Your task to perform on an android device: all mails in gmail Image 0: 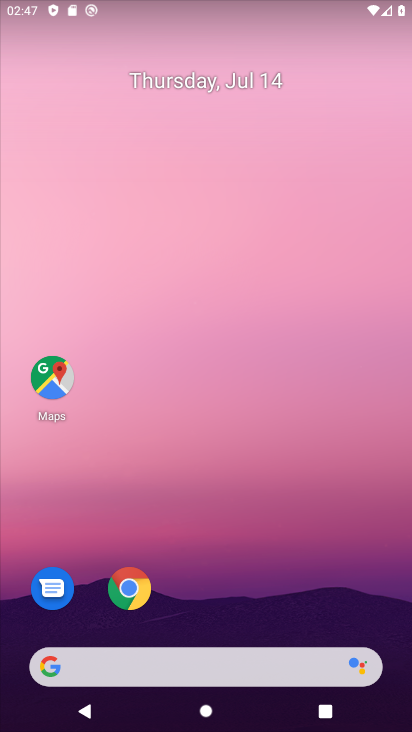
Step 0: drag from (274, 619) to (240, 178)
Your task to perform on an android device: all mails in gmail Image 1: 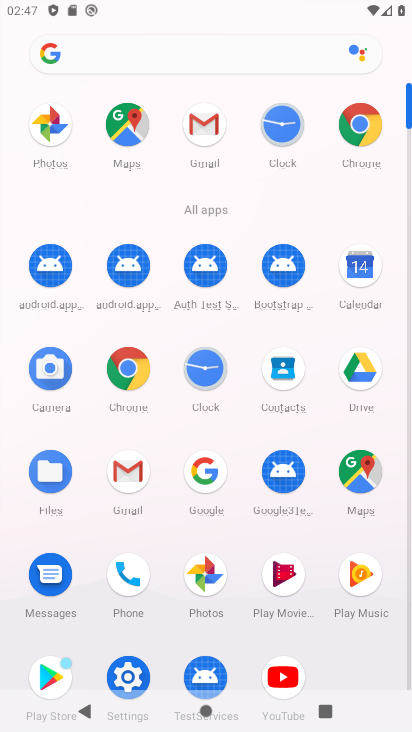
Step 1: click (210, 142)
Your task to perform on an android device: all mails in gmail Image 2: 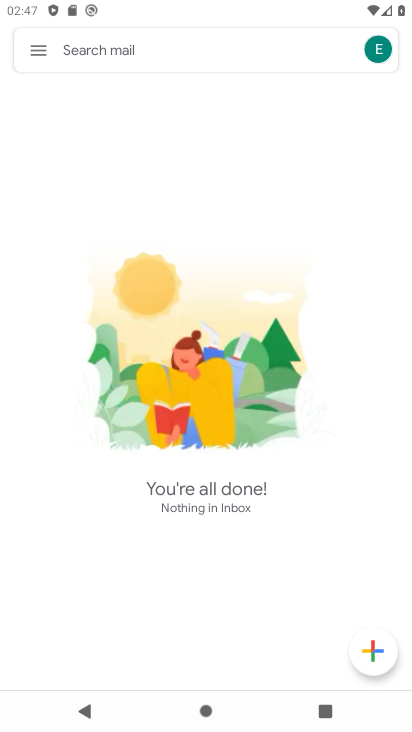
Step 2: click (38, 44)
Your task to perform on an android device: all mails in gmail Image 3: 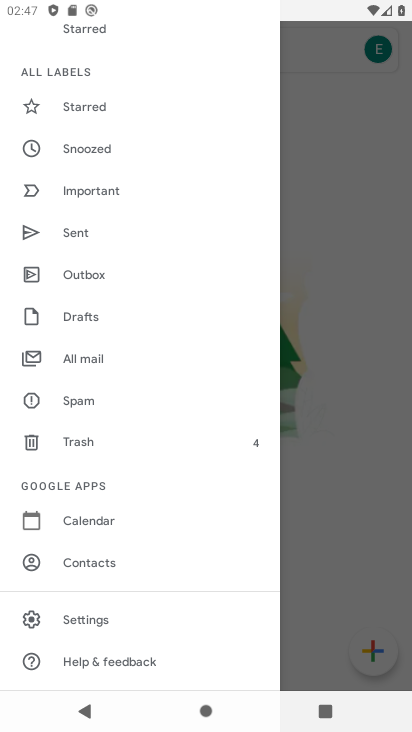
Step 3: drag from (138, 645) to (123, 498)
Your task to perform on an android device: all mails in gmail Image 4: 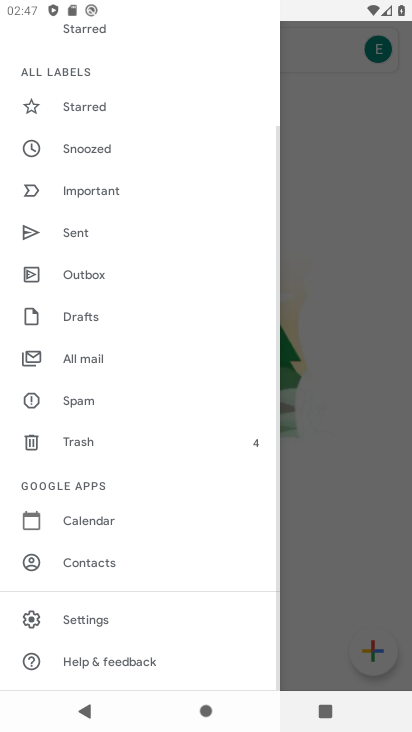
Step 4: click (108, 356)
Your task to perform on an android device: all mails in gmail Image 5: 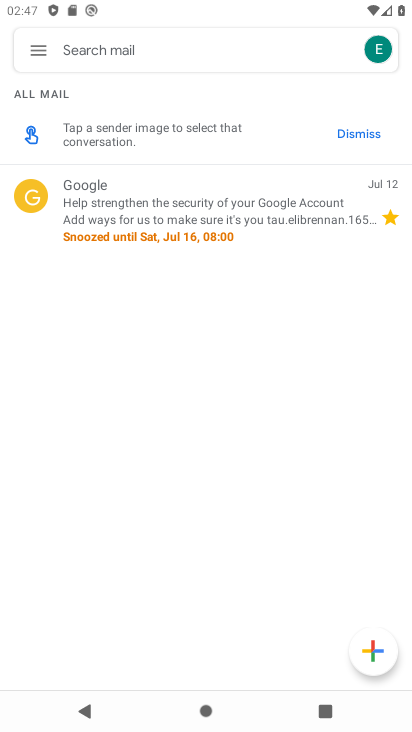
Step 5: task complete